Your task to perform on an android device: Open location settings Image 0: 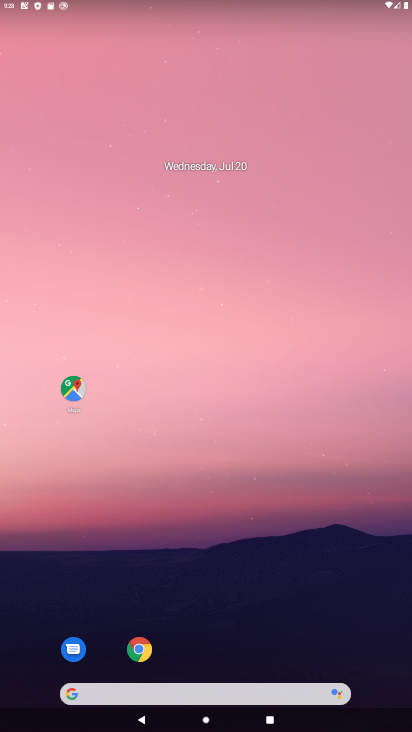
Step 0: drag from (216, 644) to (244, 109)
Your task to perform on an android device: Open location settings Image 1: 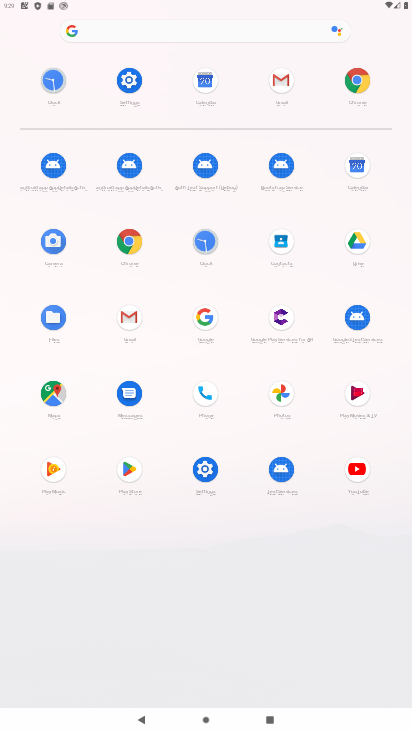
Step 1: click (139, 100)
Your task to perform on an android device: Open location settings Image 2: 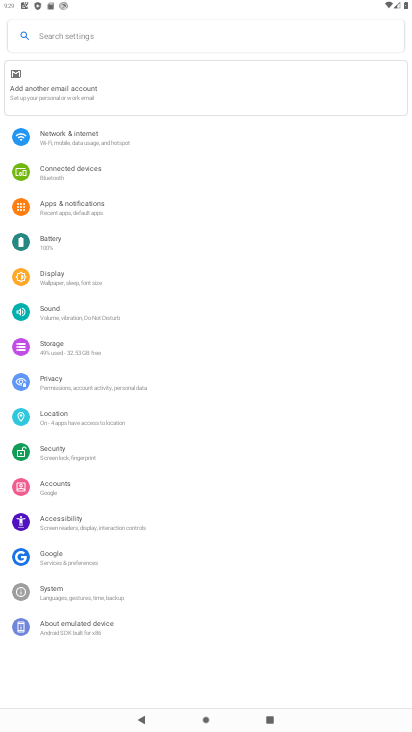
Step 2: task complete